Your task to perform on an android device: Search for Italian restaurants on Maps Image 0: 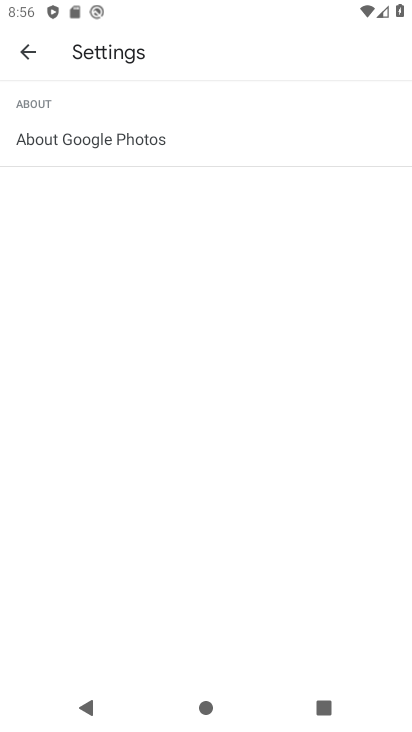
Step 0: press home button
Your task to perform on an android device: Search for Italian restaurants on Maps Image 1: 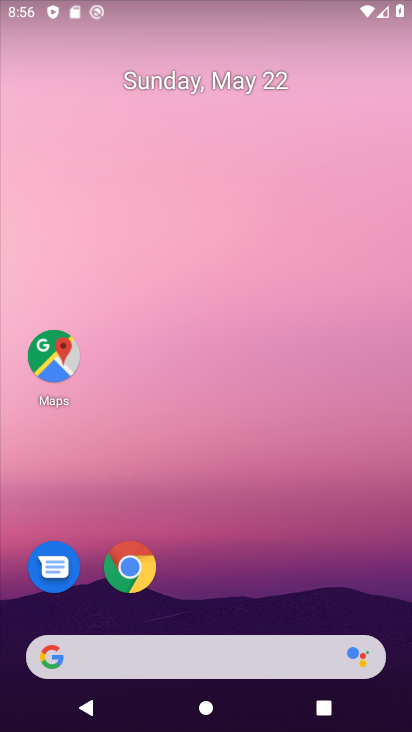
Step 1: click (51, 347)
Your task to perform on an android device: Search for Italian restaurants on Maps Image 2: 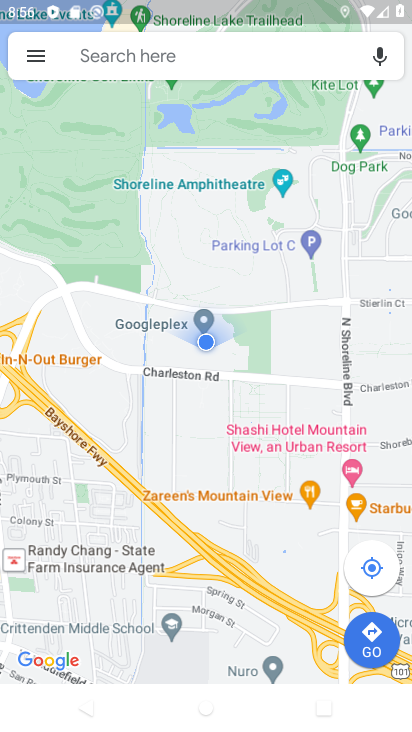
Step 2: click (144, 53)
Your task to perform on an android device: Search for Italian restaurants on Maps Image 3: 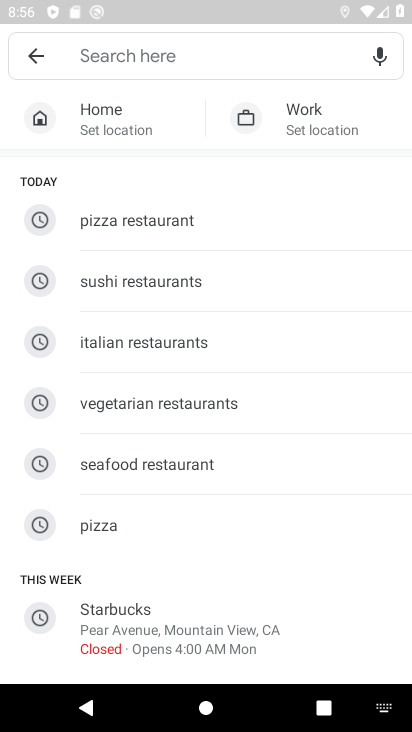
Step 3: click (126, 338)
Your task to perform on an android device: Search for Italian restaurants on Maps Image 4: 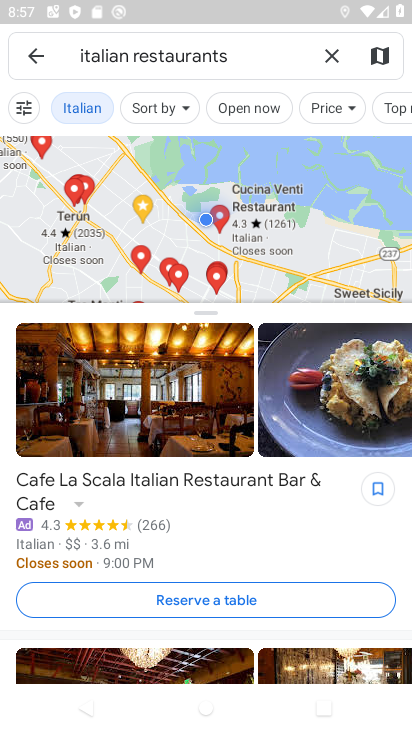
Step 4: task complete